Your task to perform on an android device: check storage Image 0: 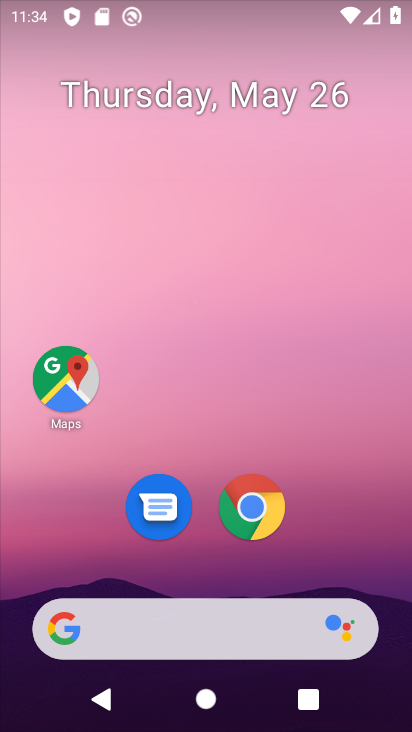
Step 0: drag from (346, 388) to (313, 63)
Your task to perform on an android device: check storage Image 1: 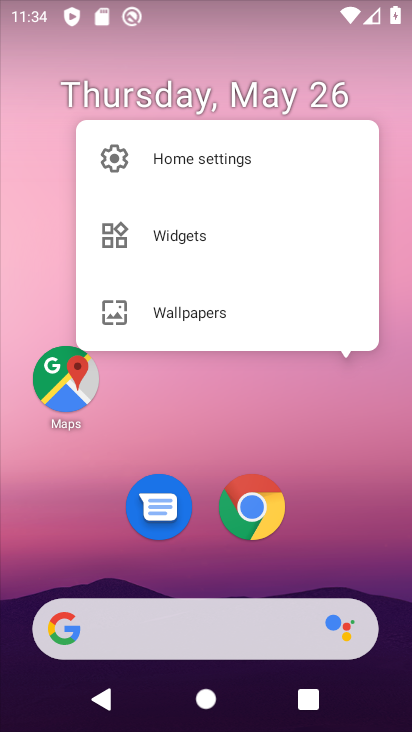
Step 1: click (331, 499)
Your task to perform on an android device: check storage Image 2: 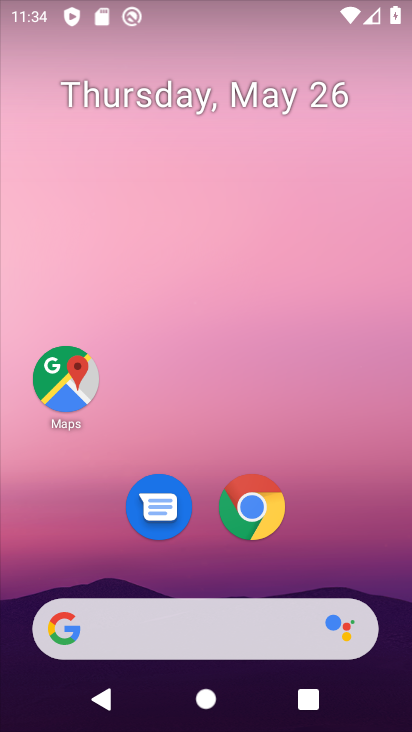
Step 2: drag from (338, 513) to (274, 62)
Your task to perform on an android device: check storage Image 3: 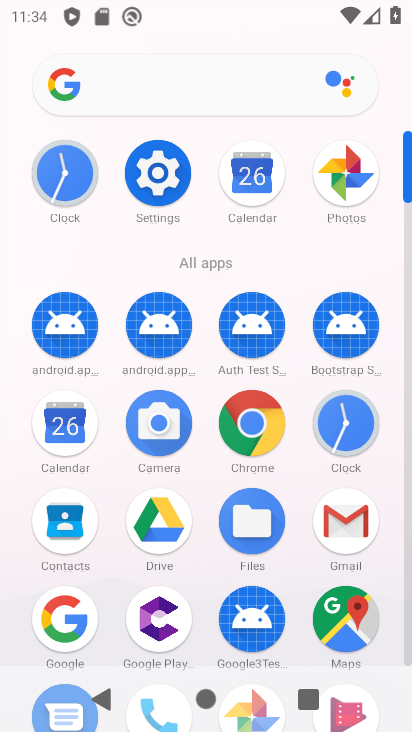
Step 3: click (161, 197)
Your task to perform on an android device: check storage Image 4: 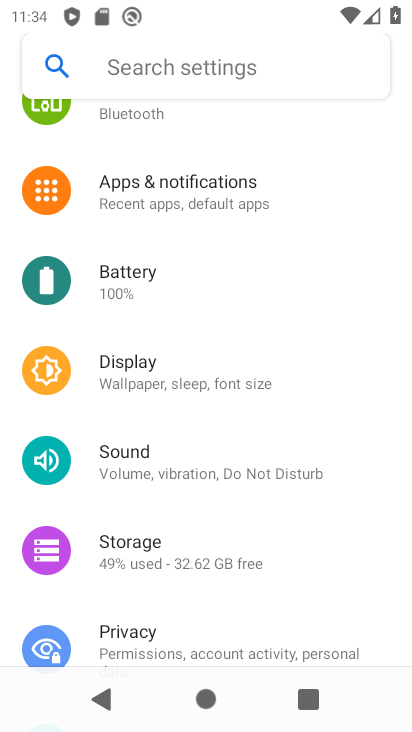
Step 4: click (187, 556)
Your task to perform on an android device: check storage Image 5: 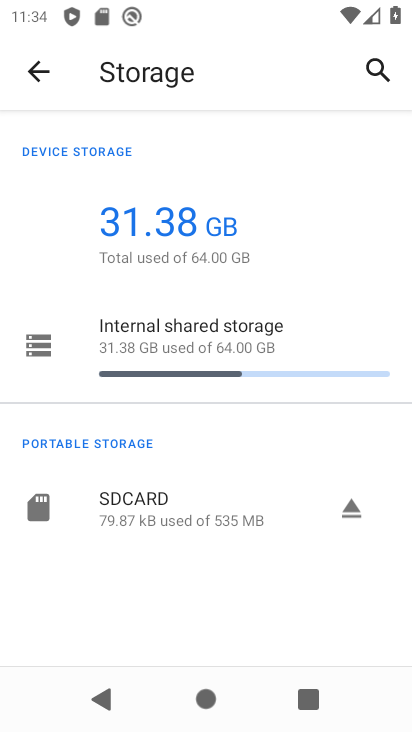
Step 5: task complete